Your task to perform on an android device: create a new album in the google photos Image 0: 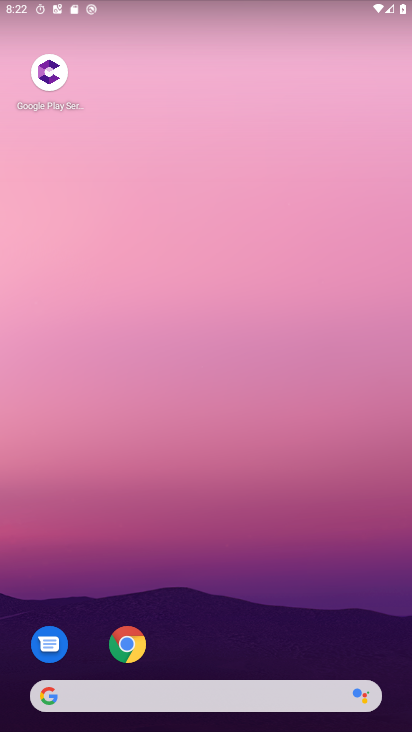
Step 0: drag from (210, 636) to (246, 168)
Your task to perform on an android device: create a new album in the google photos Image 1: 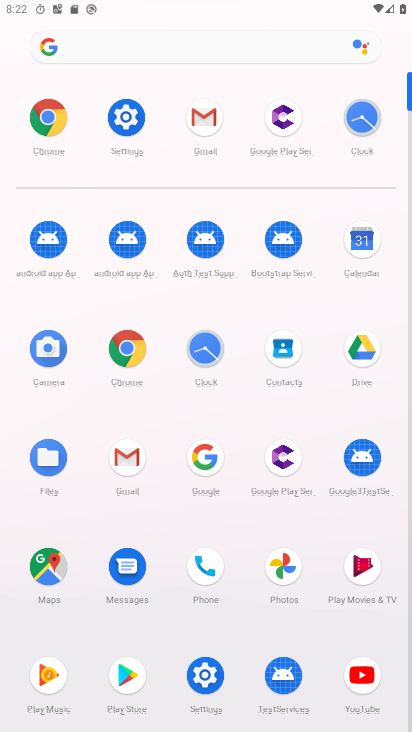
Step 1: click (279, 564)
Your task to perform on an android device: create a new album in the google photos Image 2: 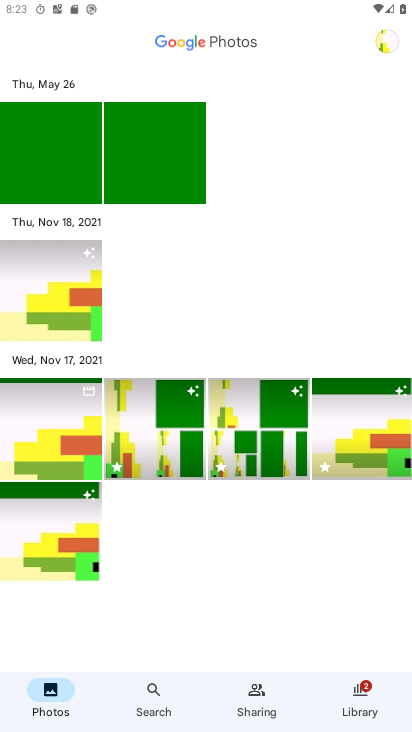
Step 2: click (155, 692)
Your task to perform on an android device: create a new album in the google photos Image 3: 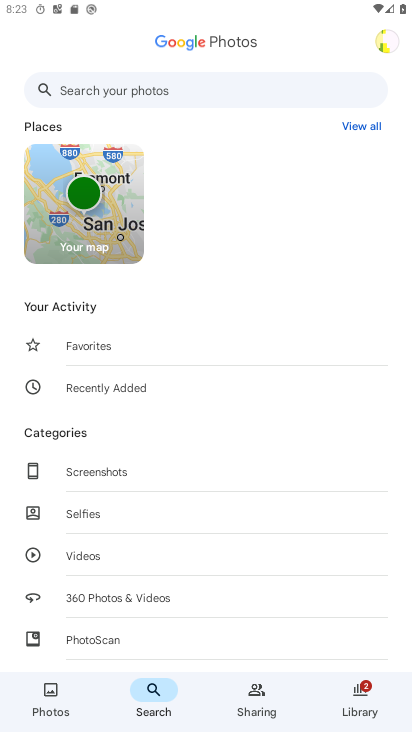
Step 3: click (256, 701)
Your task to perform on an android device: create a new album in the google photos Image 4: 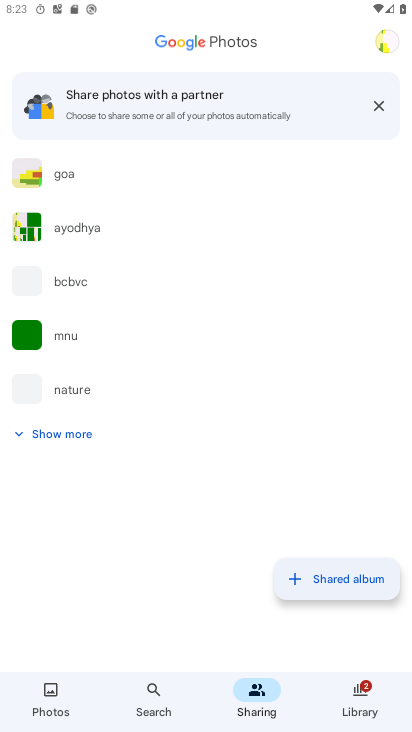
Step 4: click (323, 583)
Your task to perform on an android device: create a new album in the google photos Image 5: 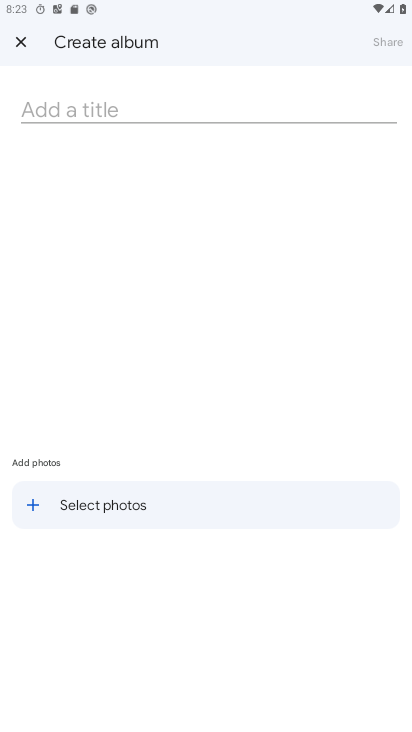
Step 5: click (61, 519)
Your task to perform on an android device: create a new album in the google photos Image 6: 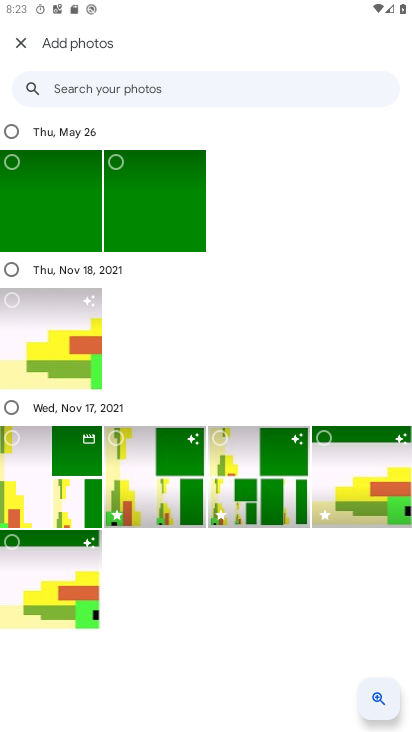
Step 6: click (25, 211)
Your task to perform on an android device: create a new album in the google photos Image 7: 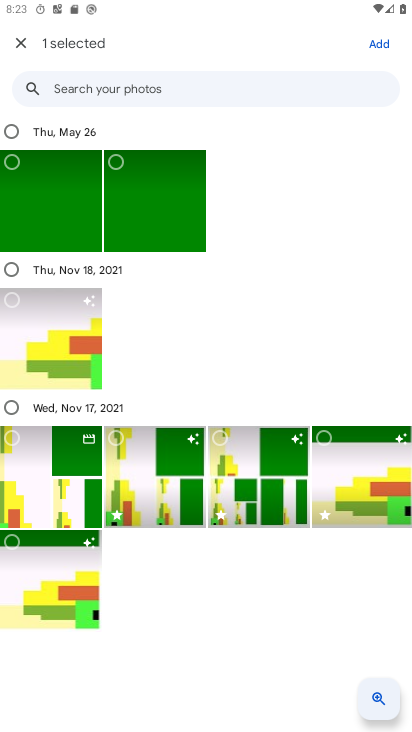
Step 7: click (42, 330)
Your task to perform on an android device: create a new album in the google photos Image 8: 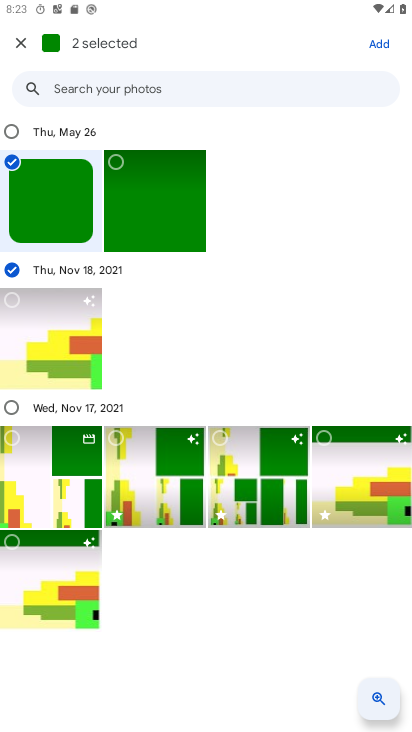
Step 8: click (58, 474)
Your task to perform on an android device: create a new album in the google photos Image 9: 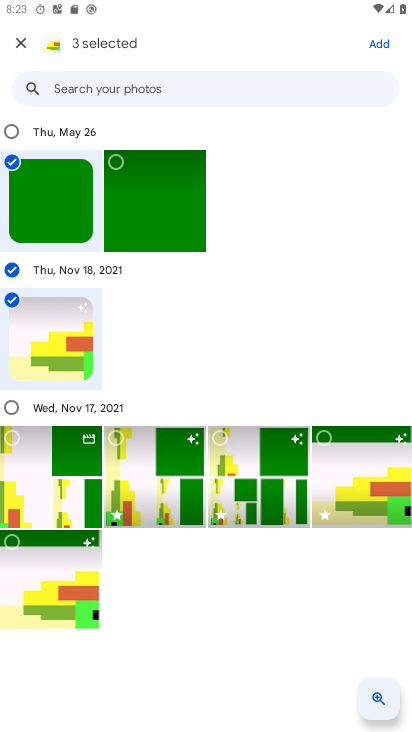
Step 9: click (54, 614)
Your task to perform on an android device: create a new album in the google photos Image 10: 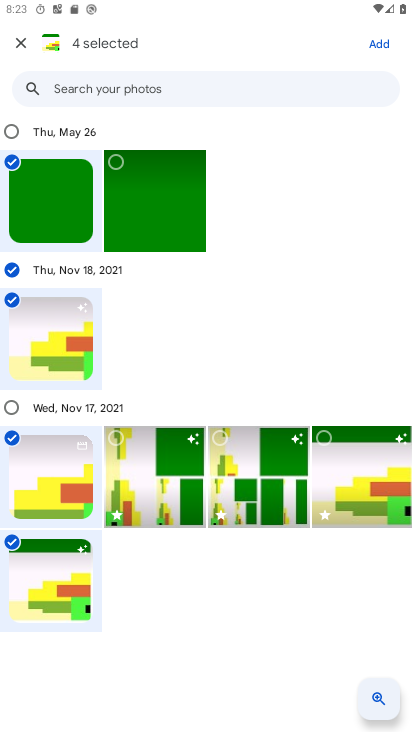
Step 10: click (365, 42)
Your task to perform on an android device: create a new album in the google photos Image 11: 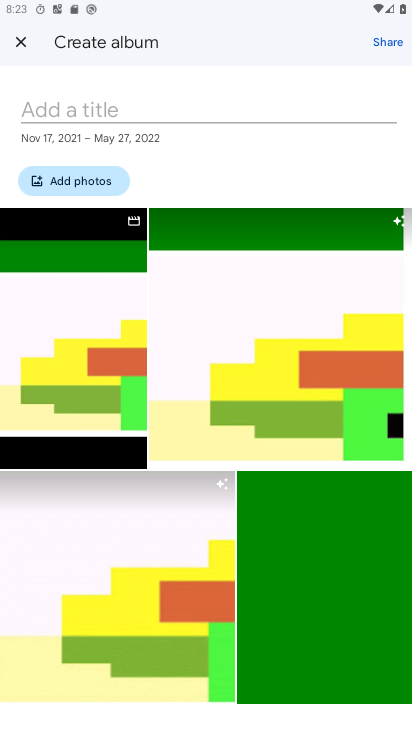
Step 11: click (85, 100)
Your task to perform on an android device: create a new album in the google photos Image 12: 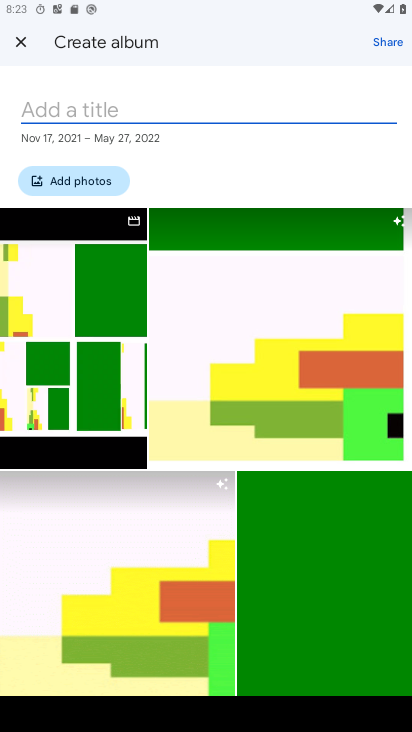
Step 12: type "ngffhd"
Your task to perform on an android device: create a new album in the google photos Image 13: 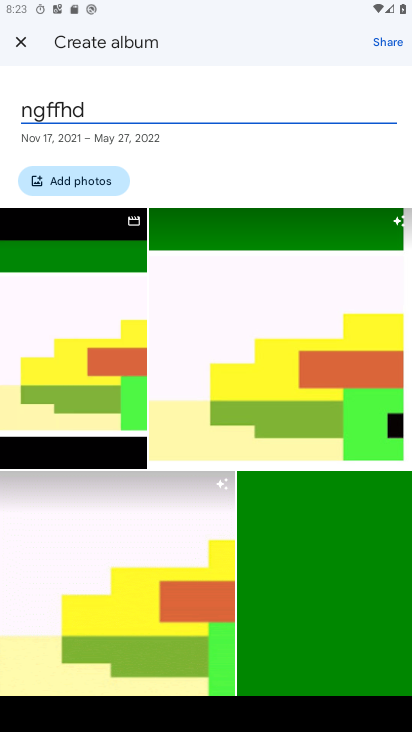
Step 13: drag from (260, 420) to (256, 151)
Your task to perform on an android device: create a new album in the google photos Image 14: 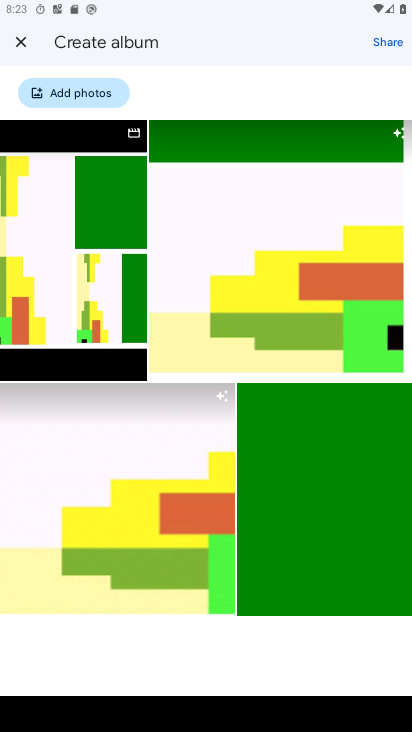
Step 14: click (247, 684)
Your task to perform on an android device: create a new album in the google photos Image 15: 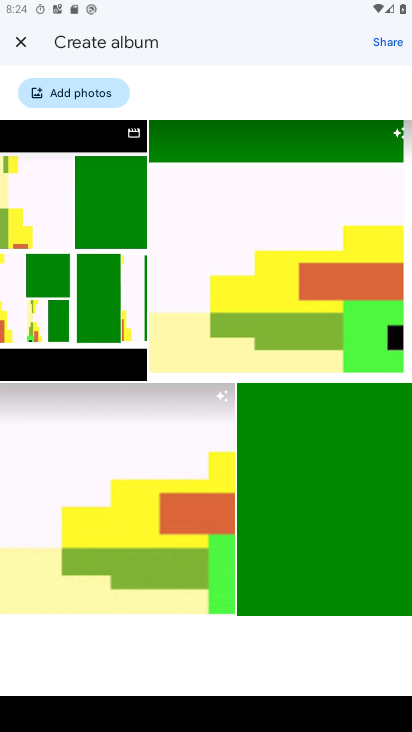
Step 15: task complete